Your task to perform on an android device: create a new album in the google photos Image 0: 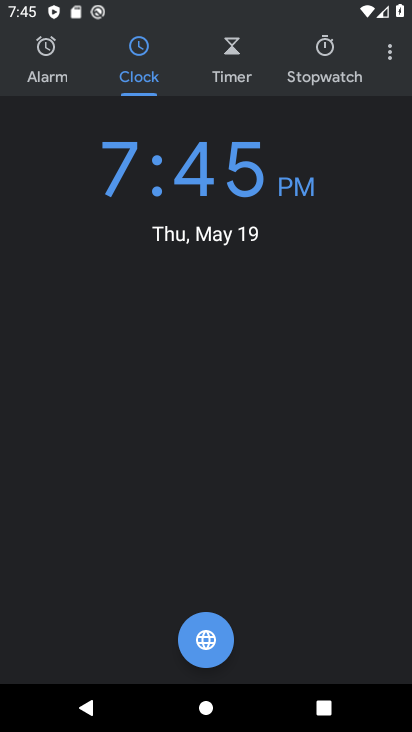
Step 0: press home button
Your task to perform on an android device: create a new album in the google photos Image 1: 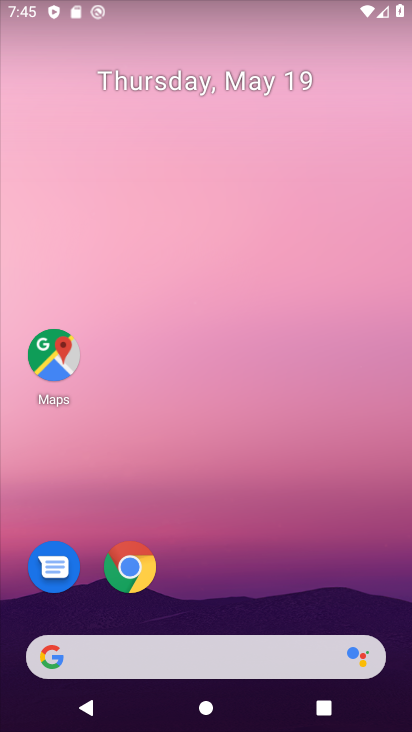
Step 1: drag from (170, 620) to (141, 107)
Your task to perform on an android device: create a new album in the google photos Image 2: 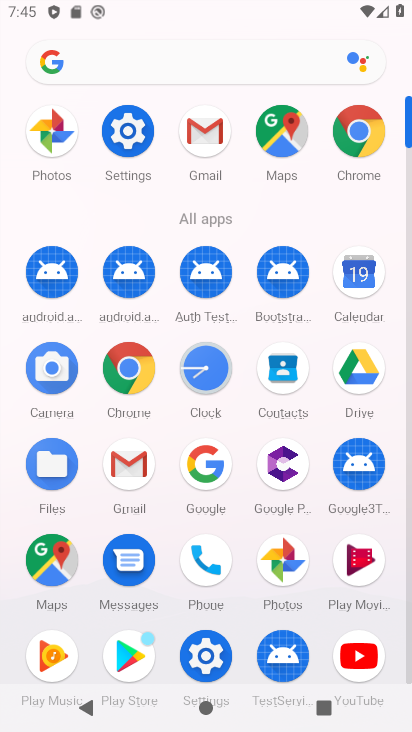
Step 2: click (288, 570)
Your task to perform on an android device: create a new album in the google photos Image 3: 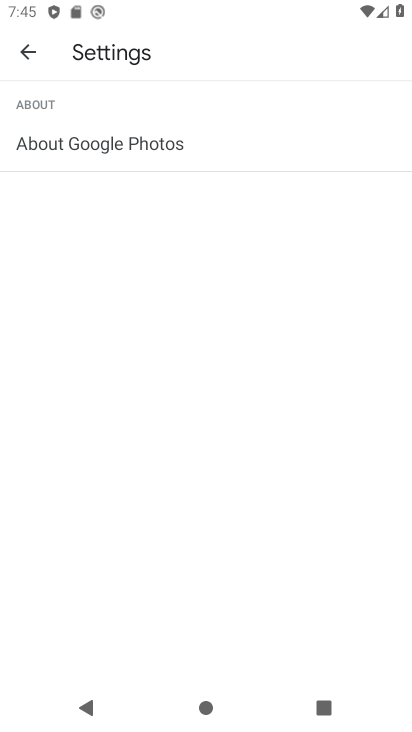
Step 3: click (34, 32)
Your task to perform on an android device: create a new album in the google photos Image 4: 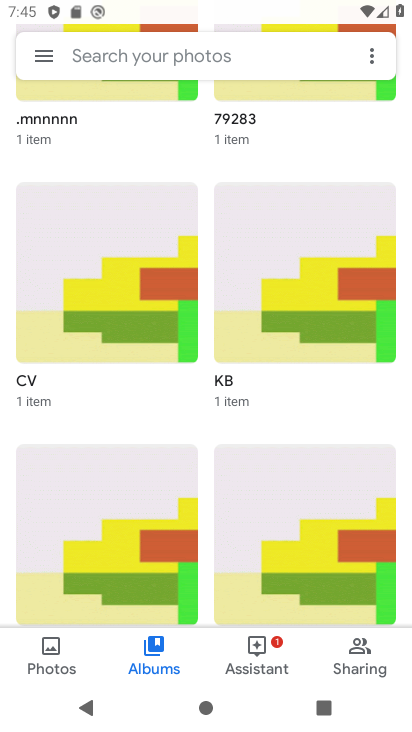
Step 4: click (60, 645)
Your task to perform on an android device: create a new album in the google photos Image 5: 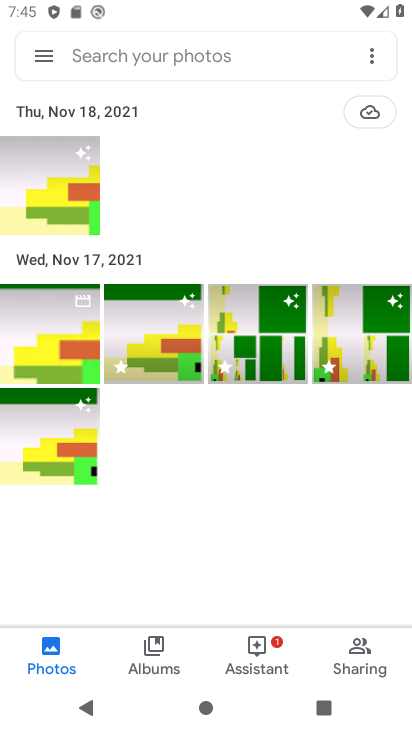
Step 5: click (64, 333)
Your task to perform on an android device: create a new album in the google photos Image 6: 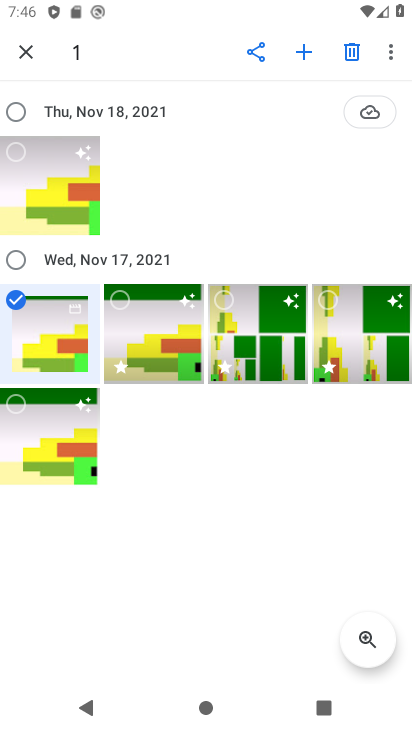
Step 6: click (129, 311)
Your task to perform on an android device: create a new album in the google photos Image 7: 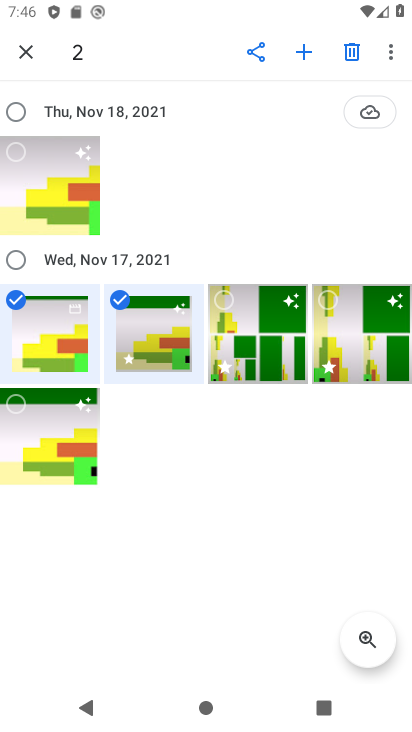
Step 7: click (248, 327)
Your task to perform on an android device: create a new album in the google photos Image 8: 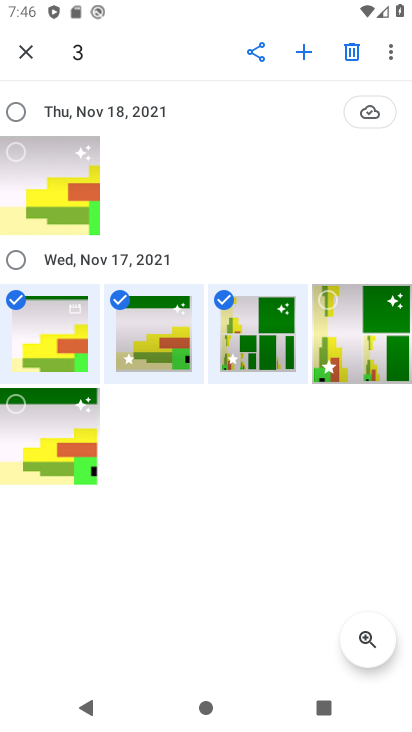
Step 8: click (353, 328)
Your task to perform on an android device: create a new album in the google photos Image 9: 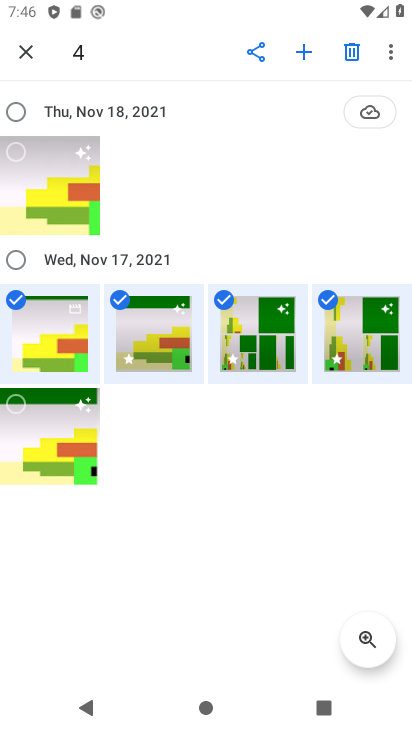
Step 9: click (55, 451)
Your task to perform on an android device: create a new album in the google photos Image 10: 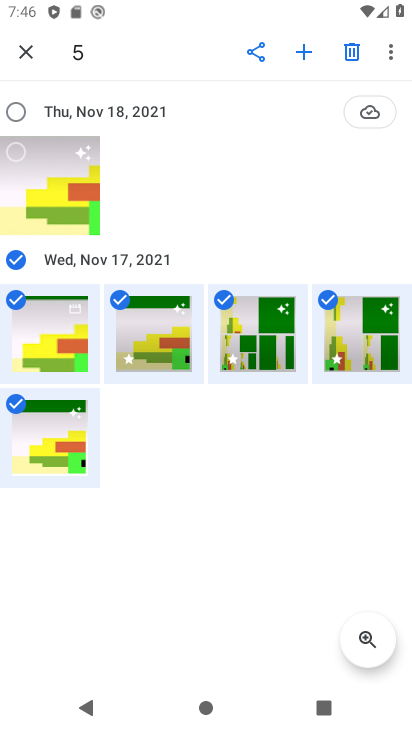
Step 10: click (299, 59)
Your task to perform on an android device: create a new album in the google photos Image 11: 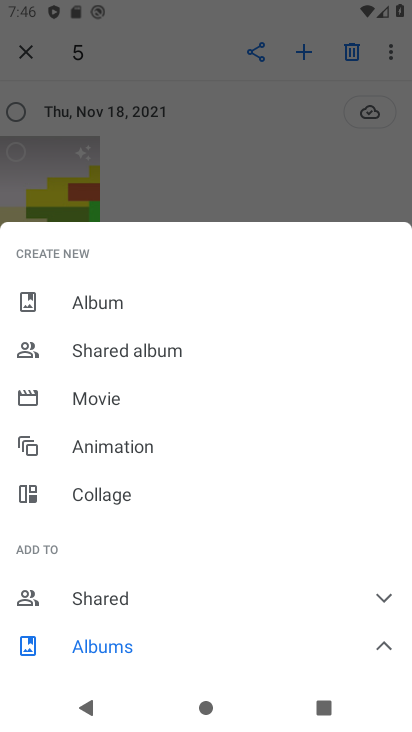
Step 11: click (103, 321)
Your task to perform on an android device: create a new album in the google photos Image 12: 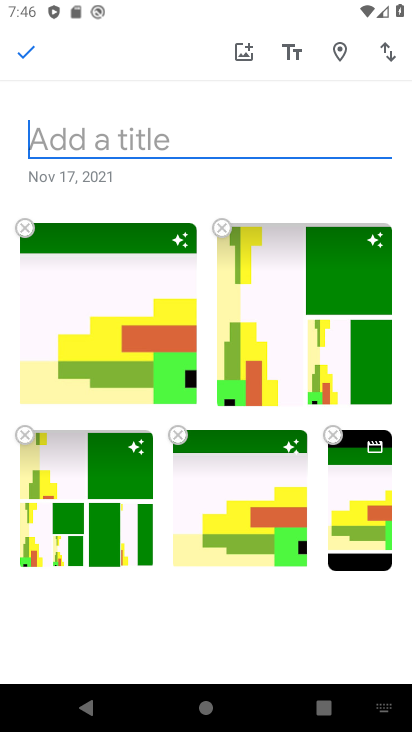
Step 12: type "tumtum"
Your task to perform on an android device: create a new album in the google photos Image 13: 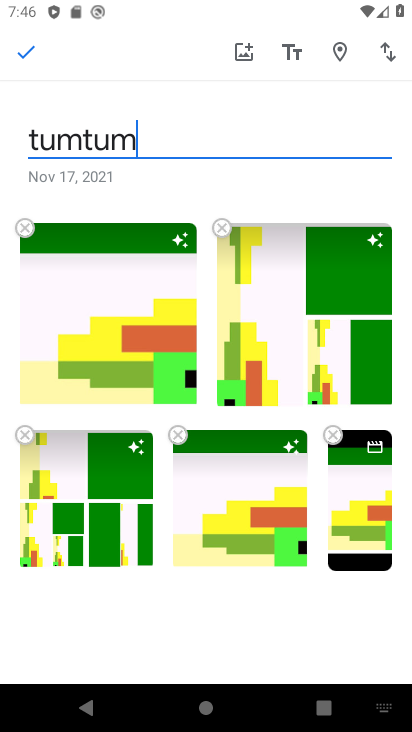
Step 13: click (34, 50)
Your task to perform on an android device: create a new album in the google photos Image 14: 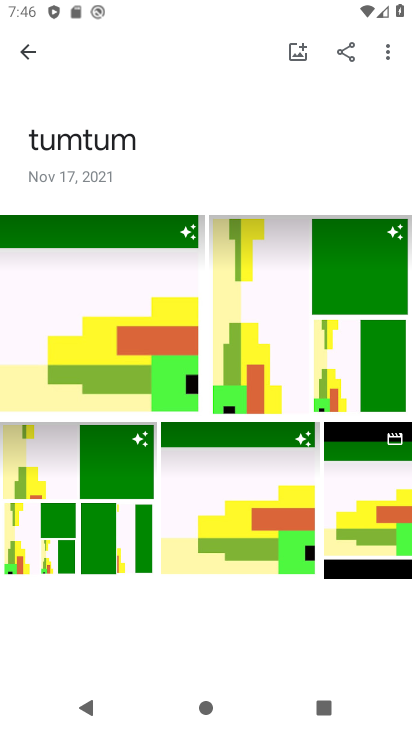
Step 14: task complete